Your task to perform on an android device: check battery use Image 0: 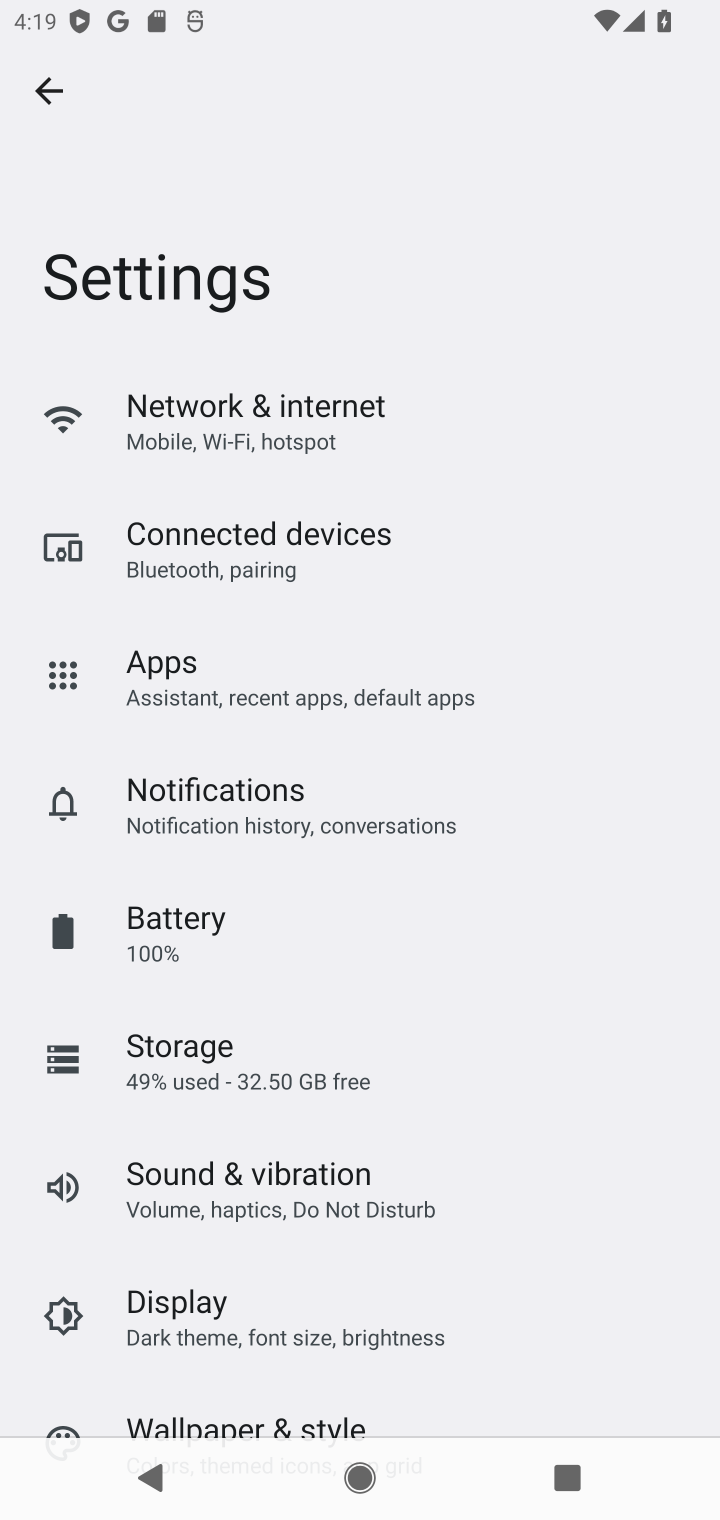
Step 0: click (213, 934)
Your task to perform on an android device: check battery use Image 1: 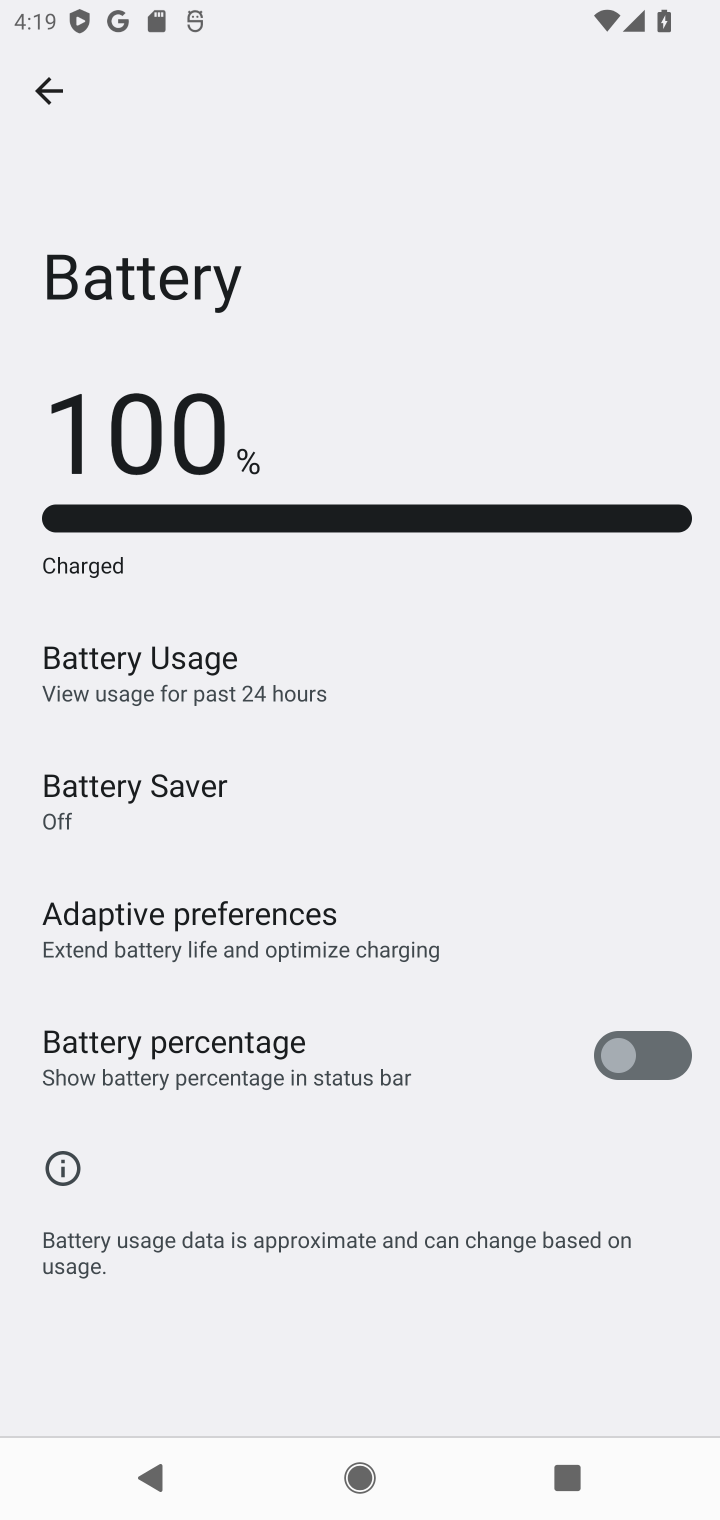
Step 1: click (245, 648)
Your task to perform on an android device: check battery use Image 2: 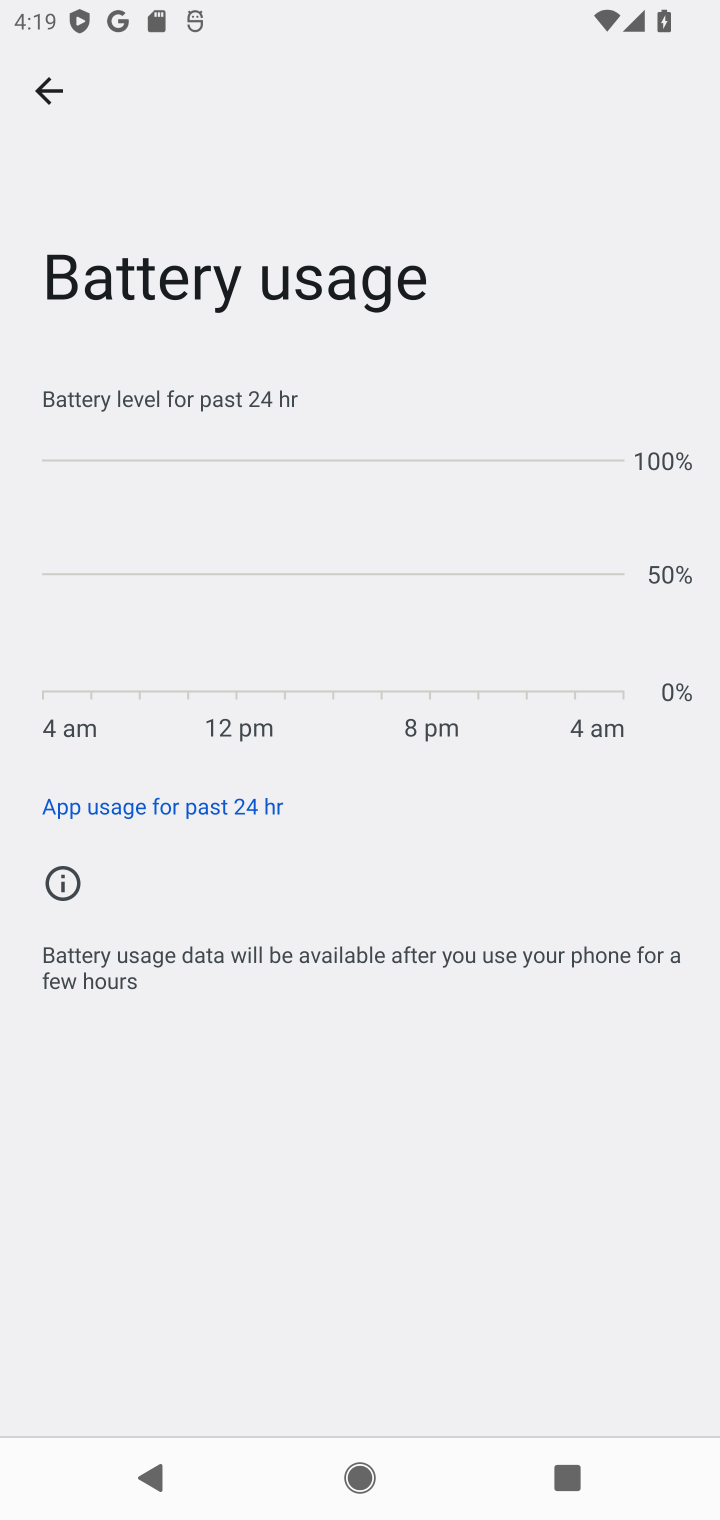
Step 2: task complete